Your task to perform on an android device: Go to eBay Image 0: 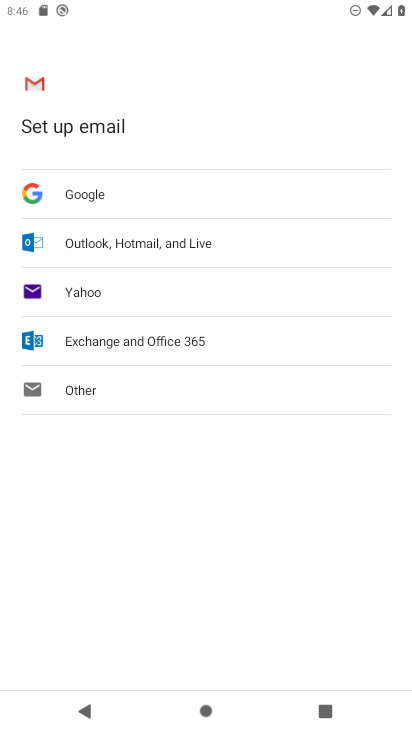
Step 0: press home button
Your task to perform on an android device: Go to eBay Image 1: 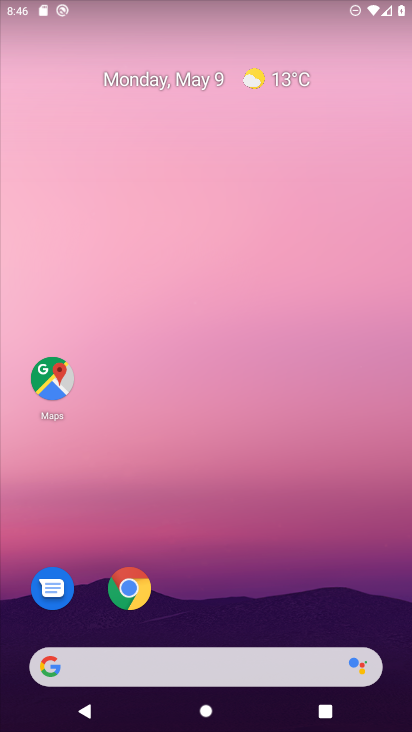
Step 1: drag from (296, 589) to (333, 8)
Your task to perform on an android device: Go to eBay Image 2: 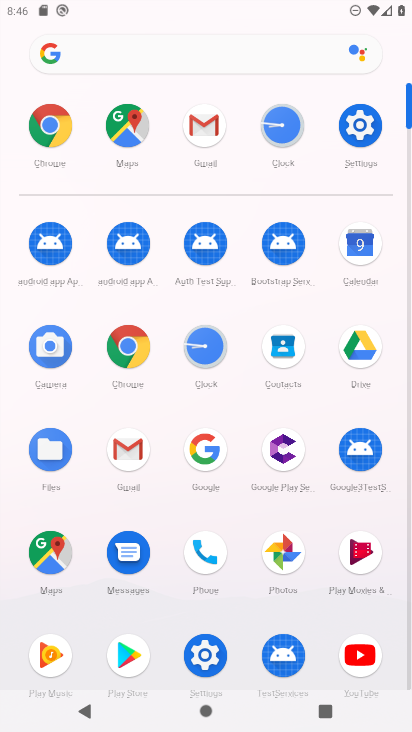
Step 2: click (53, 113)
Your task to perform on an android device: Go to eBay Image 3: 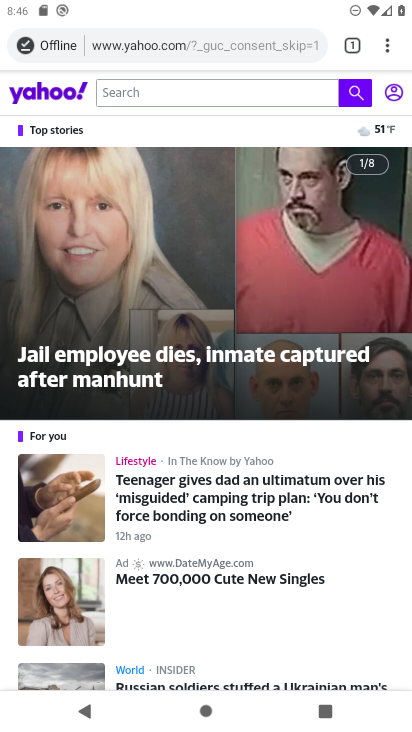
Step 3: click (104, 39)
Your task to perform on an android device: Go to eBay Image 4: 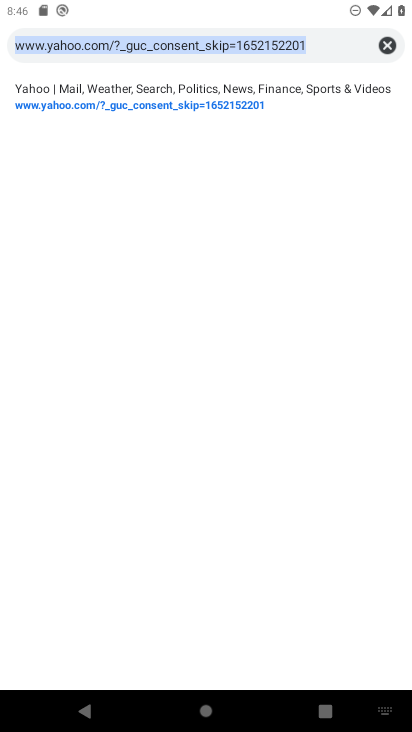
Step 4: type "ebay.com"
Your task to perform on an android device: Go to eBay Image 5: 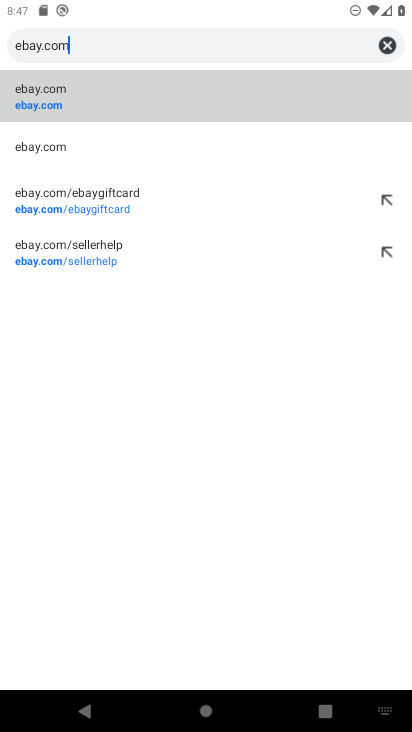
Step 5: click (191, 111)
Your task to perform on an android device: Go to eBay Image 6: 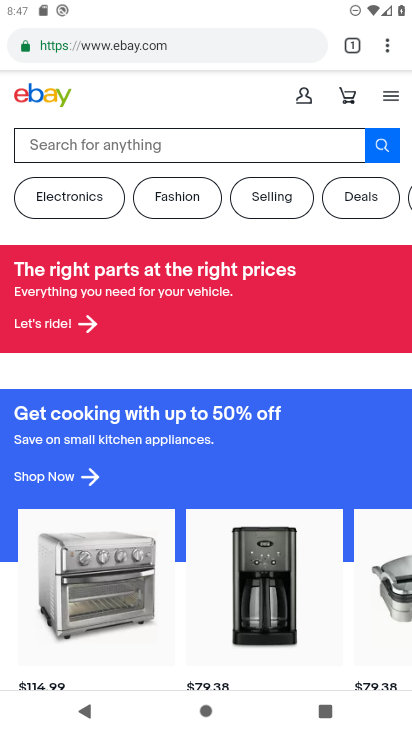
Step 6: task complete